Your task to perform on an android device: turn on improve location accuracy Image 0: 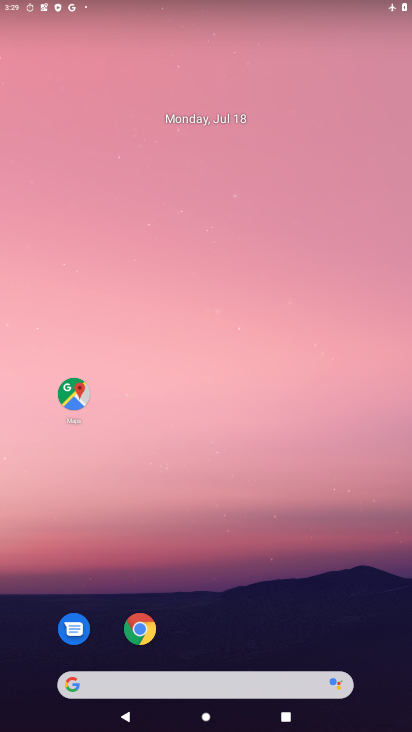
Step 0: drag from (232, 665) to (141, 77)
Your task to perform on an android device: turn on improve location accuracy Image 1: 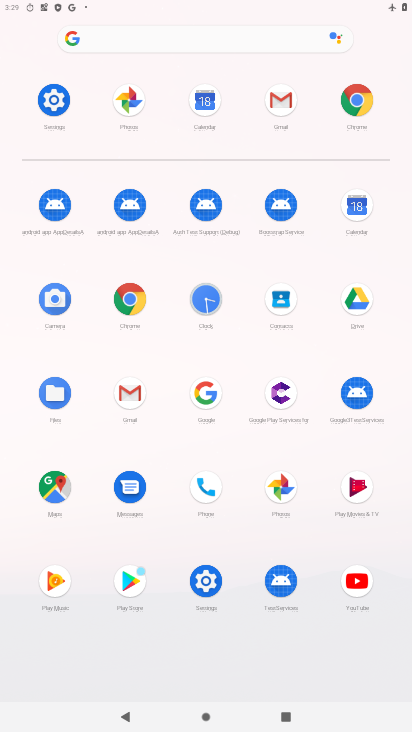
Step 1: click (54, 101)
Your task to perform on an android device: turn on improve location accuracy Image 2: 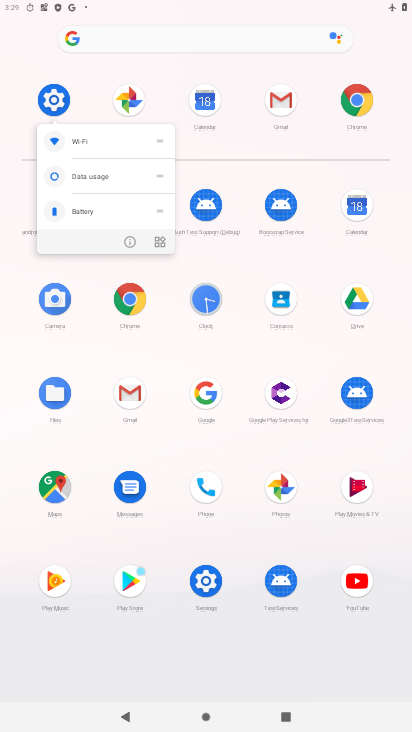
Step 2: click (53, 101)
Your task to perform on an android device: turn on improve location accuracy Image 3: 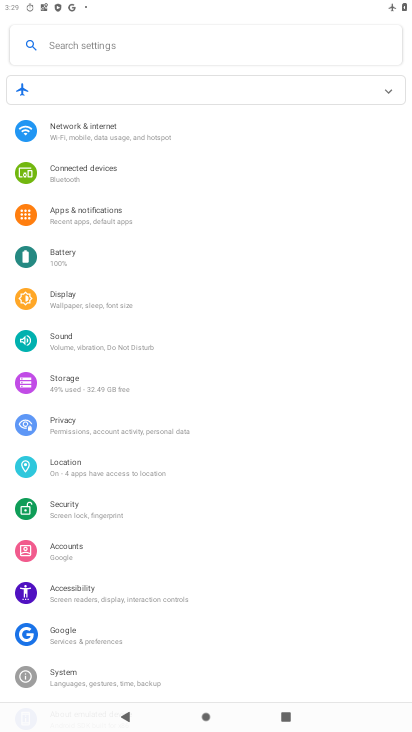
Step 3: click (69, 467)
Your task to perform on an android device: turn on improve location accuracy Image 4: 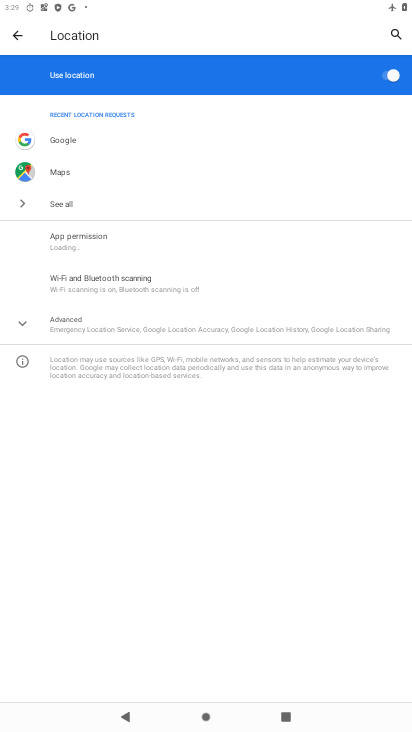
Step 4: click (72, 332)
Your task to perform on an android device: turn on improve location accuracy Image 5: 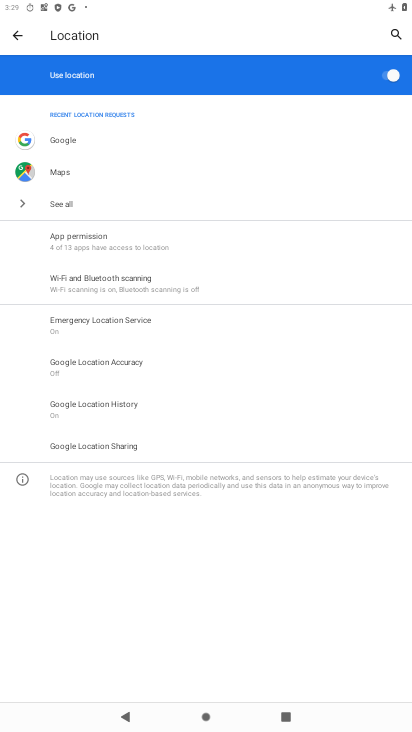
Step 5: click (103, 354)
Your task to perform on an android device: turn on improve location accuracy Image 6: 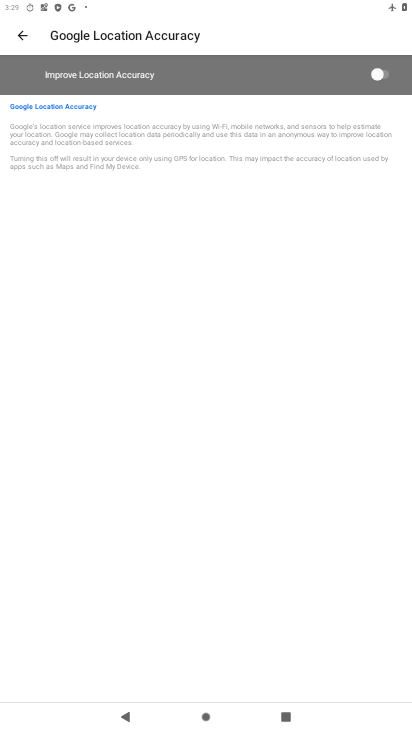
Step 6: click (375, 74)
Your task to perform on an android device: turn on improve location accuracy Image 7: 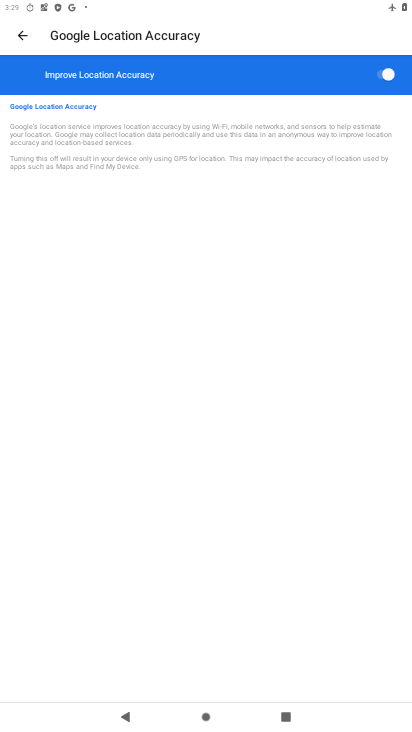
Step 7: task complete